Your task to perform on an android device: uninstall "Google Play services" Image 0: 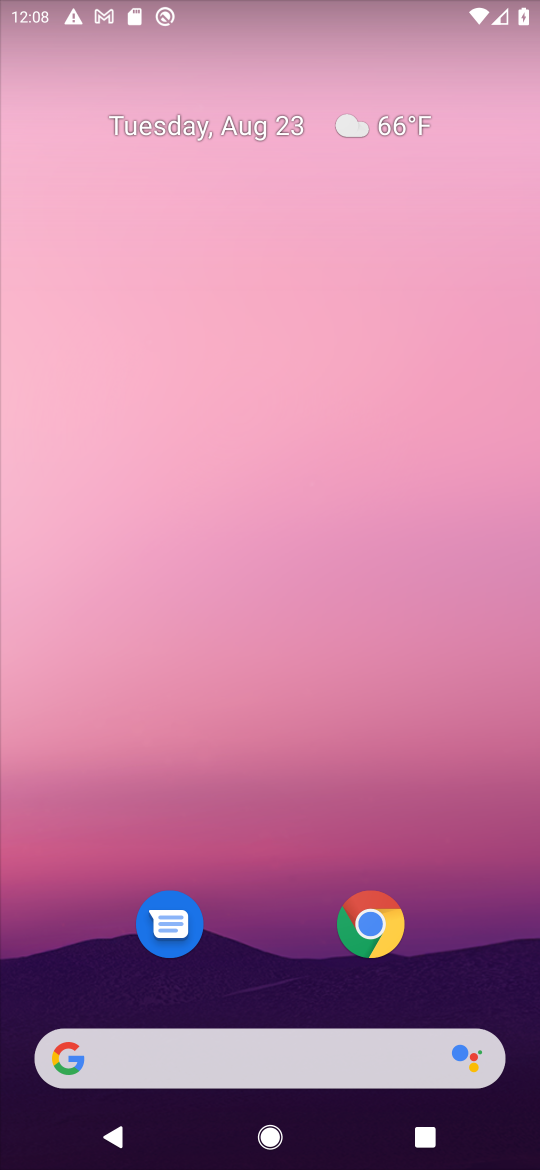
Step 0: press home button
Your task to perform on an android device: uninstall "Google Play services" Image 1: 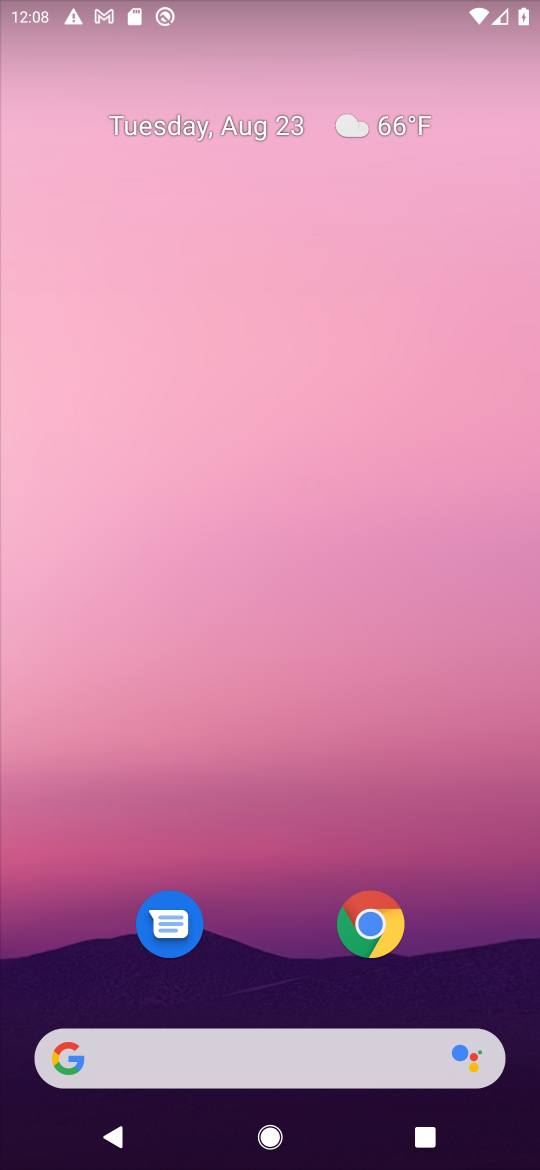
Step 1: drag from (457, 843) to (442, 92)
Your task to perform on an android device: uninstall "Google Play services" Image 2: 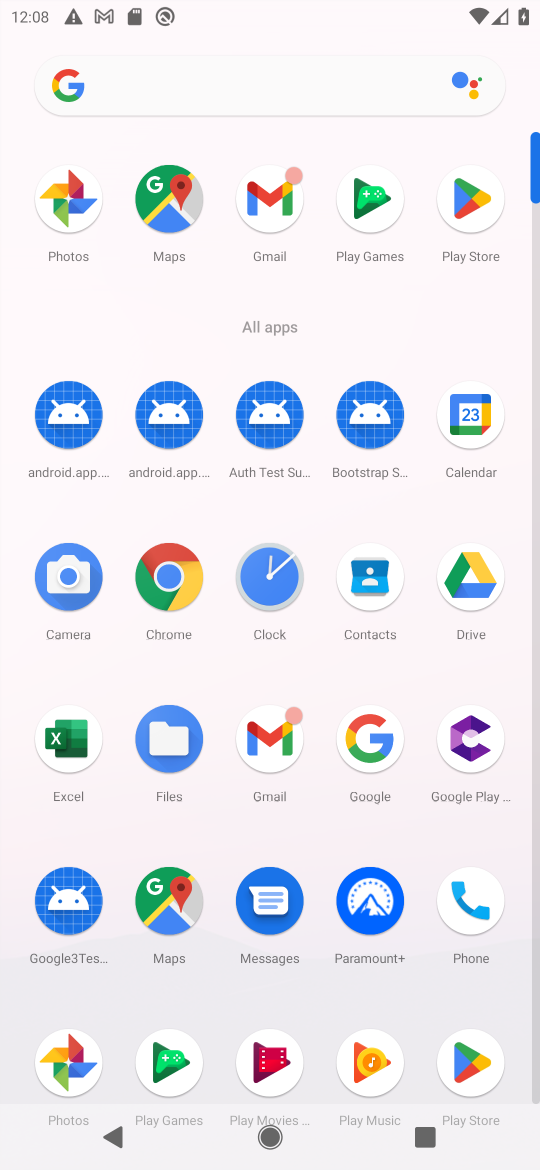
Step 2: click (464, 201)
Your task to perform on an android device: uninstall "Google Play services" Image 3: 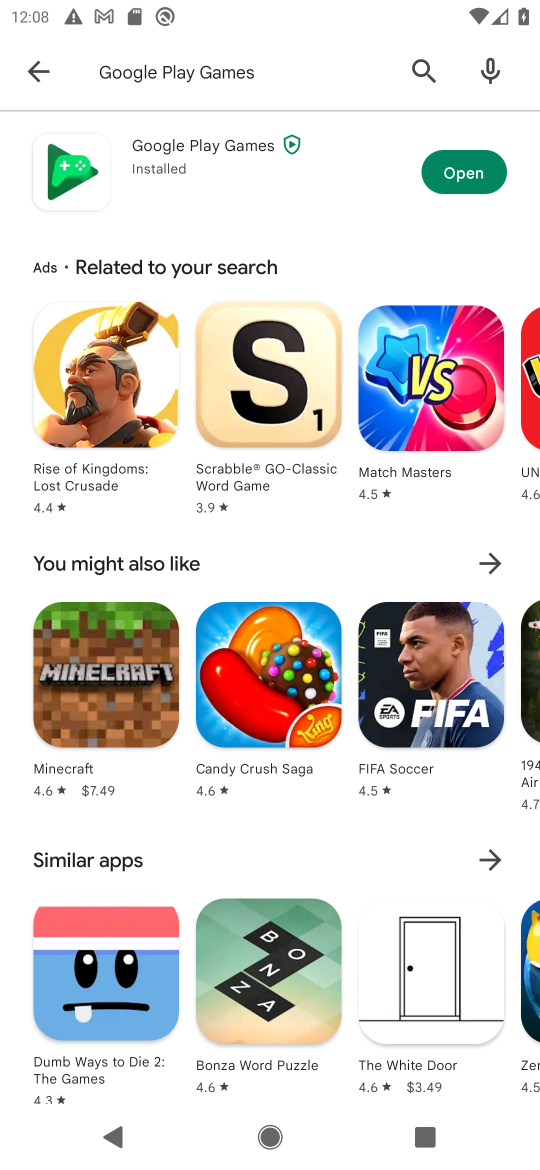
Step 3: press back button
Your task to perform on an android device: uninstall "Google Play services" Image 4: 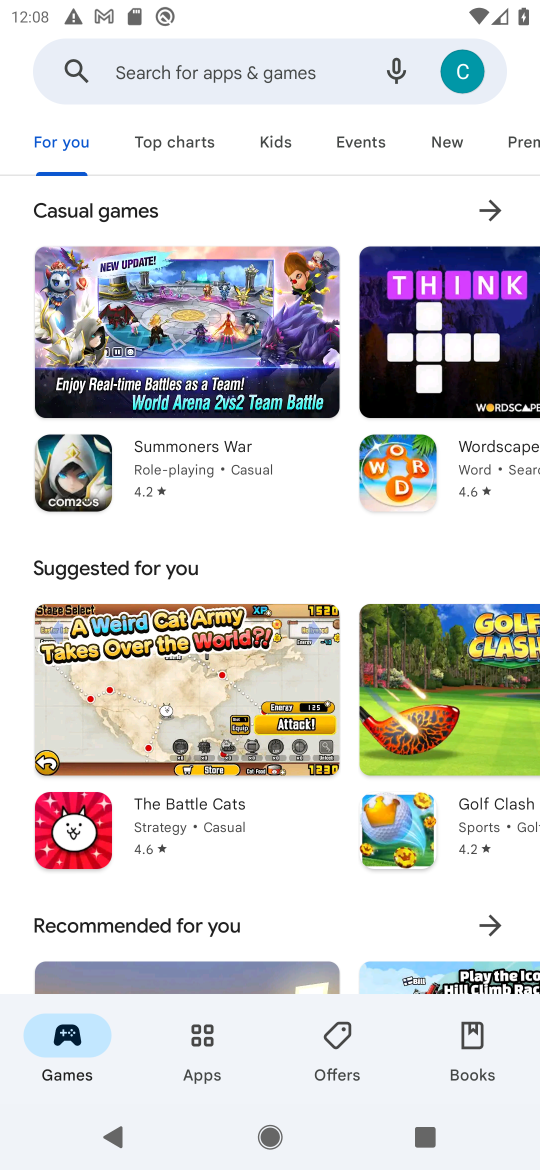
Step 4: click (214, 68)
Your task to perform on an android device: uninstall "Google Play services" Image 5: 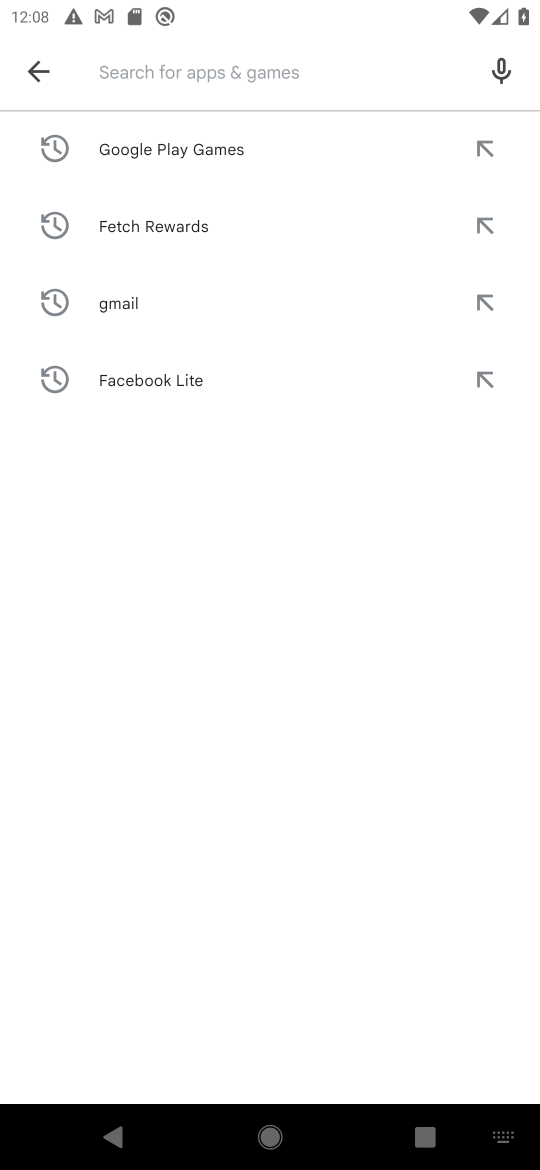
Step 5: type "Google Play services"
Your task to perform on an android device: uninstall "Google Play services" Image 6: 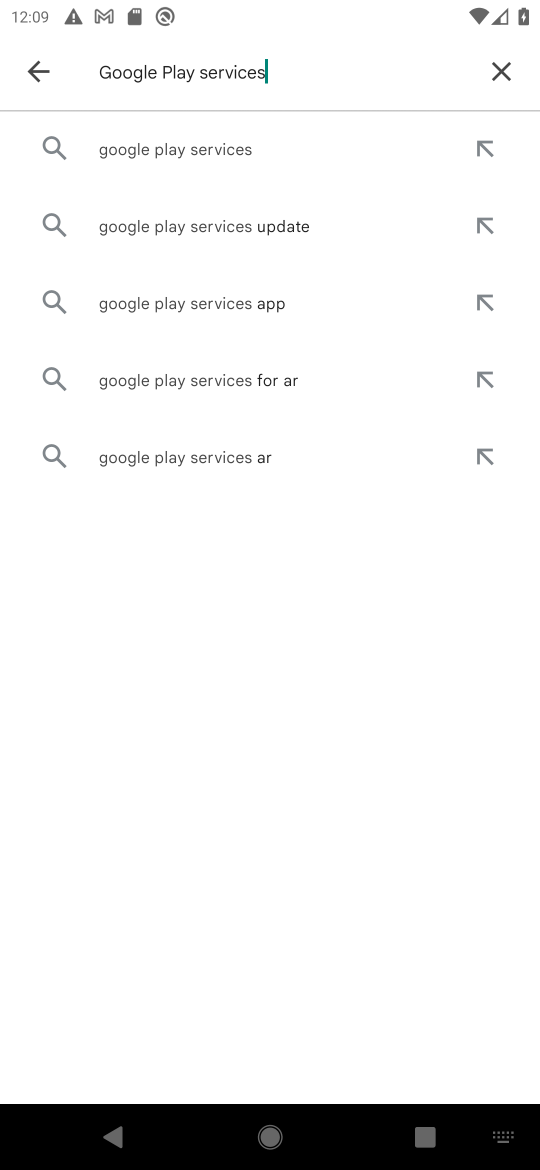
Step 6: click (235, 147)
Your task to perform on an android device: uninstall "Google Play services" Image 7: 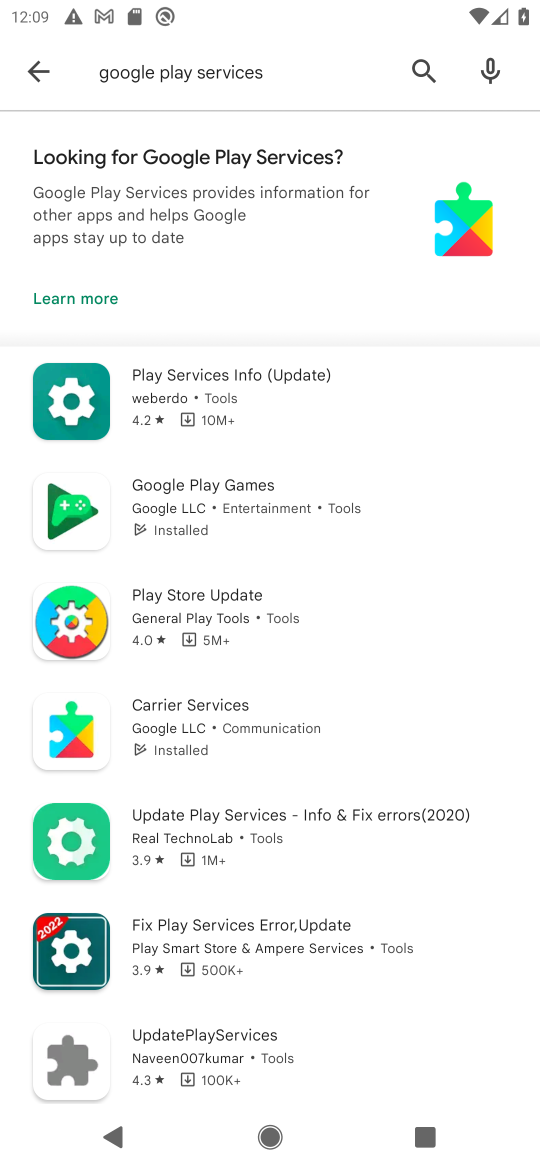
Step 7: task complete